Your task to perform on an android device: Open Chrome and go to the settings page Image 0: 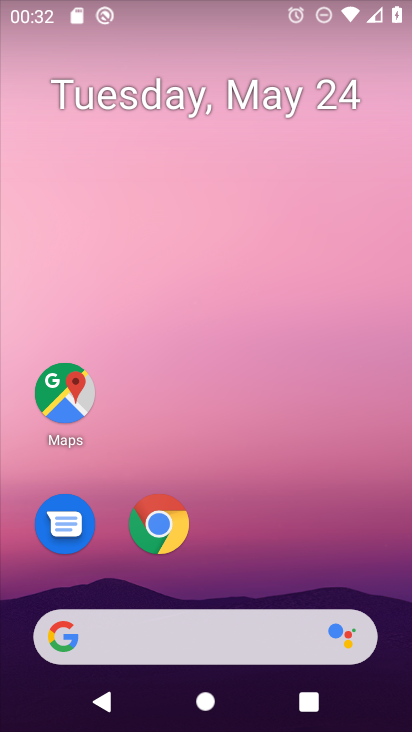
Step 0: click (180, 527)
Your task to perform on an android device: Open Chrome and go to the settings page Image 1: 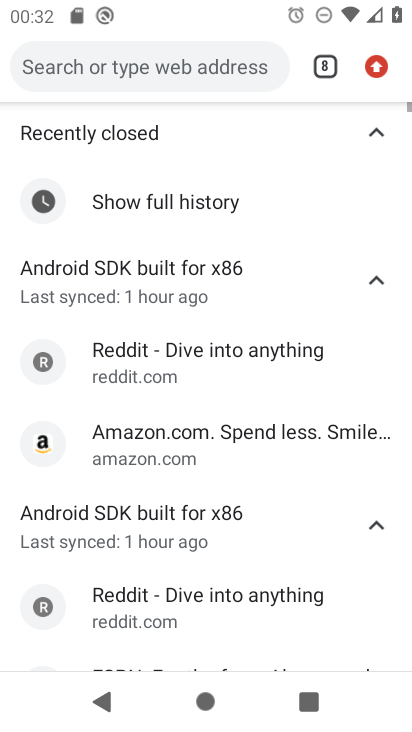
Step 1: task complete